Your task to perform on an android device: Go to Amazon Image 0: 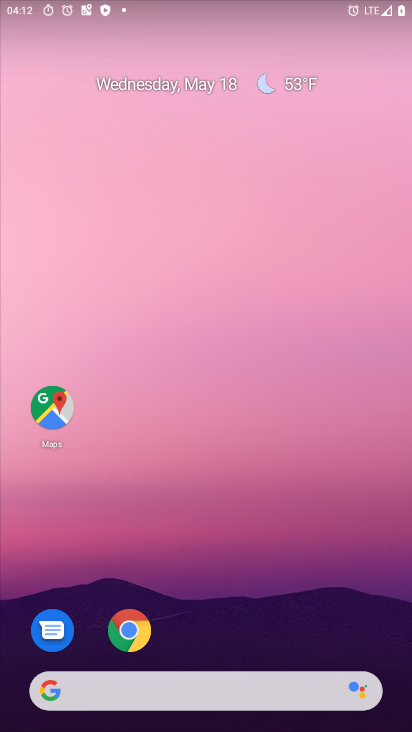
Step 0: click (126, 635)
Your task to perform on an android device: Go to Amazon Image 1: 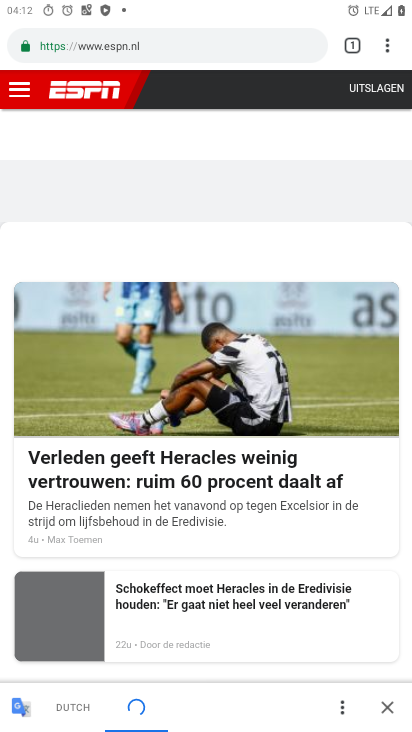
Step 1: click (387, 50)
Your task to perform on an android device: Go to Amazon Image 2: 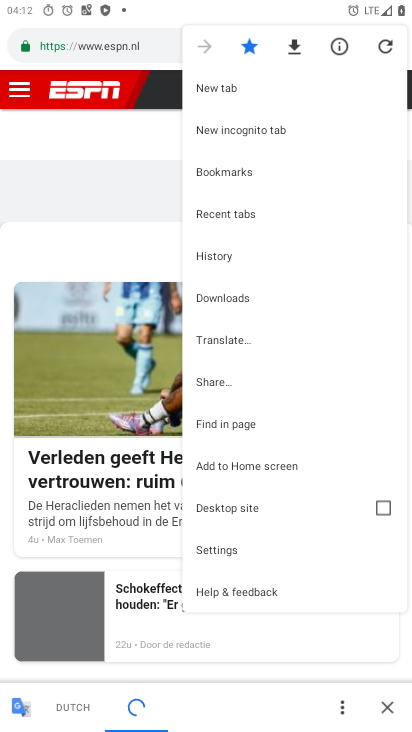
Step 2: click (230, 89)
Your task to perform on an android device: Go to Amazon Image 3: 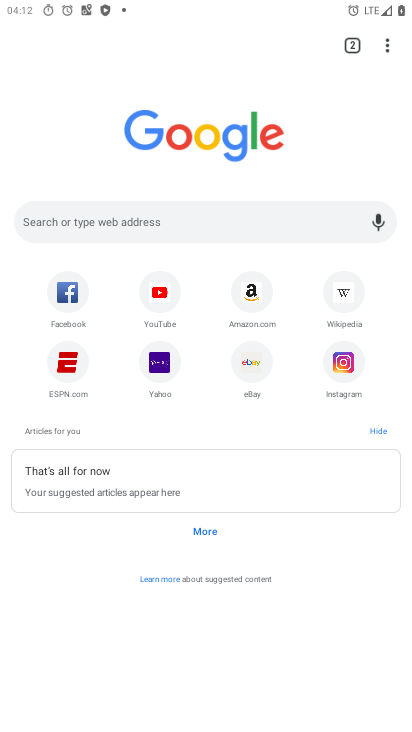
Step 3: click (247, 298)
Your task to perform on an android device: Go to Amazon Image 4: 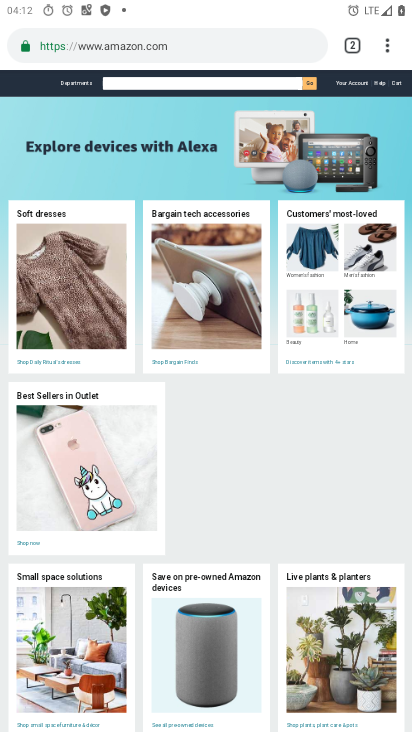
Step 4: task complete